Your task to perform on an android device: Set the phone to "Do not disturb". Image 0: 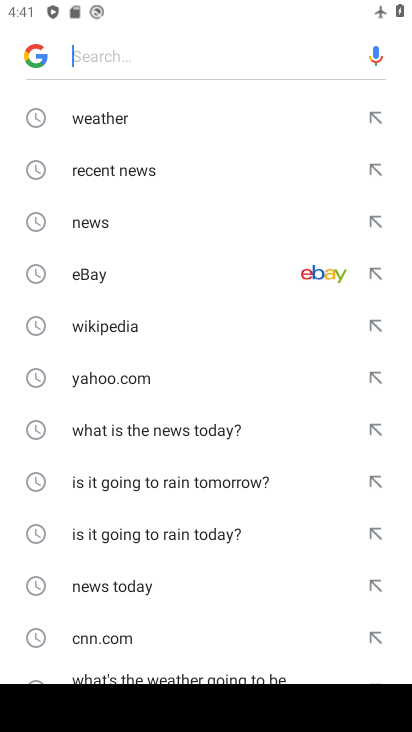
Step 0: press home button
Your task to perform on an android device: Set the phone to "Do not disturb". Image 1: 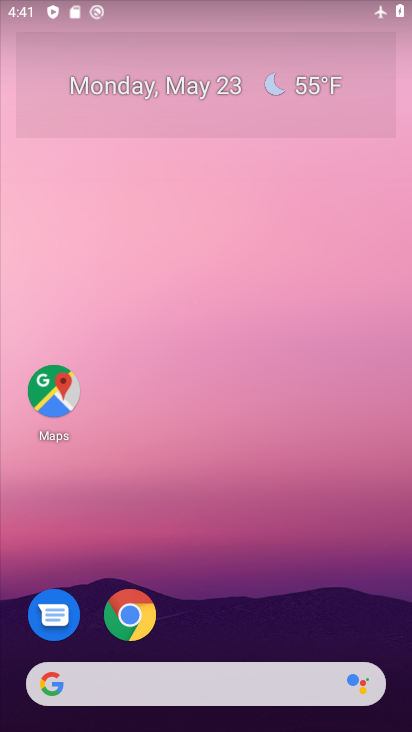
Step 1: drag from (330, 613) to (369, 199)
Your task to perform on an android device: Set the phone to "Do not disturb". Image 2: 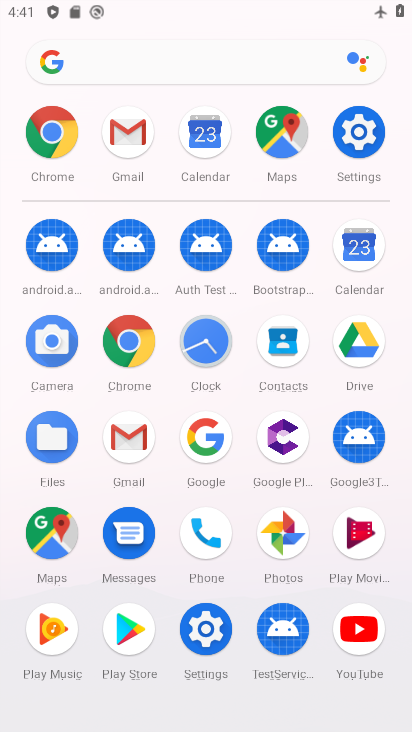
Step 2: click (357, 147)
Your task to perform on an android device: Set the phone to "Do not disturb". Image 3: 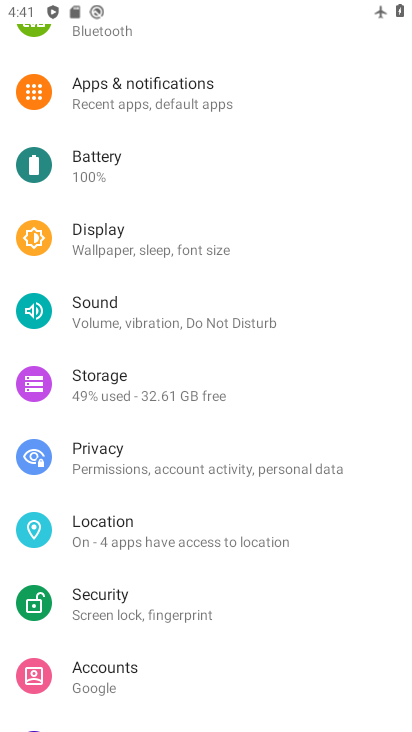
Step 3: drag from (330, 233) to (326, 375)
Your task to perform on an android device: Set the phone to "Do not disturb". Image 4: 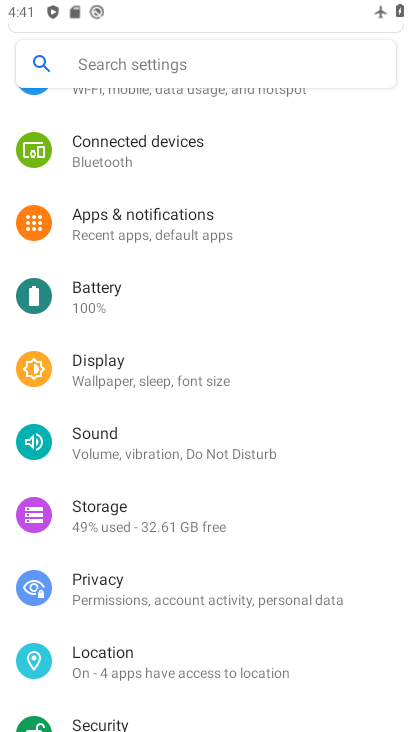
Step 4: drag from (326, 170) to (320, 336)
Your task to perform on an android device: Set the phone to "Do not disturb". Image 5: 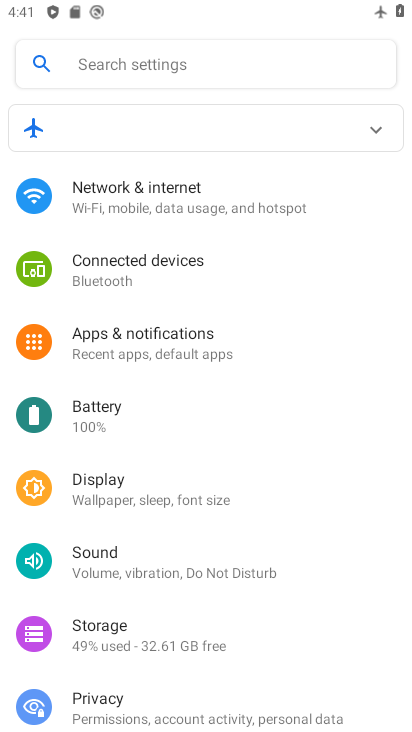
Step 5: drag from (340, 414) to (340, 323)
Your task to perform on an android device: Set the phone to "Do not disturb". Image 6: 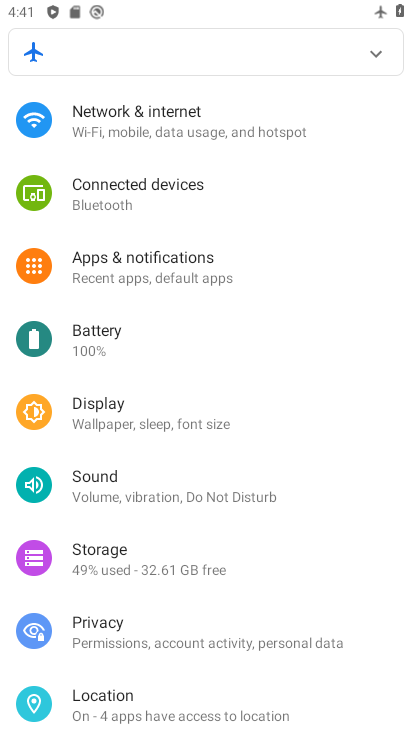
Step 6: drag from (333, 432) to (339, 334)
Your task to perform on an android device: Set the phone to "Do not disturb". Image 7: 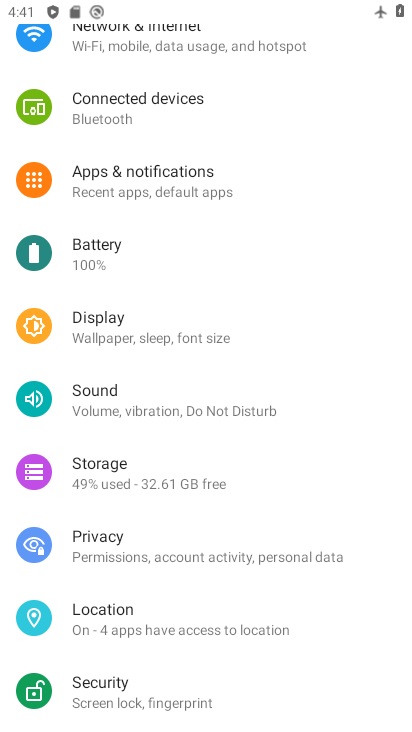
Step 7: drag from (337, 450) to (338, 355)
Your task to perform on an android device: Set the phone to "Do not disturb". Image 8: 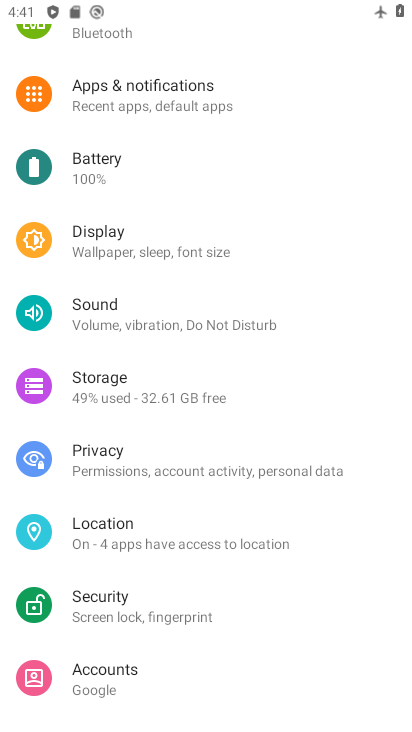
Step 8: drag from (353, 491) to (368, 381)
Your task to perform on an android device: Set the phone to "Do not disturb". Image 9: 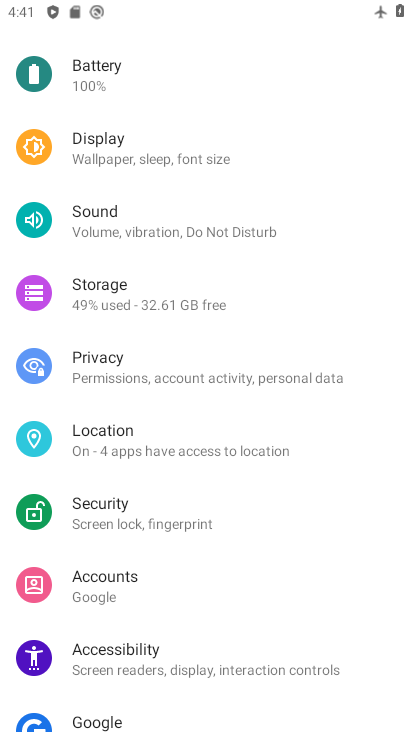
Step 9: drag from (353, 483) to (364, 375)
Your task to perform on an android device: Set the phone to "Do not disturb". Image 10: 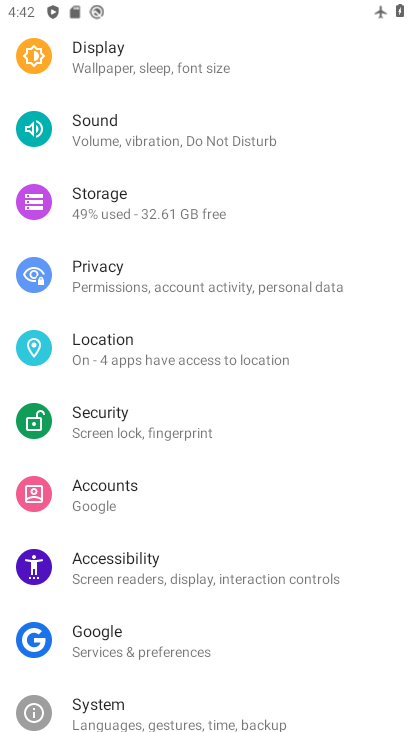
Step 10: drag from (346, 515) to (355, 395)
Your task to perform on an android device: Set the phone to "Do not disturb". Image 11: 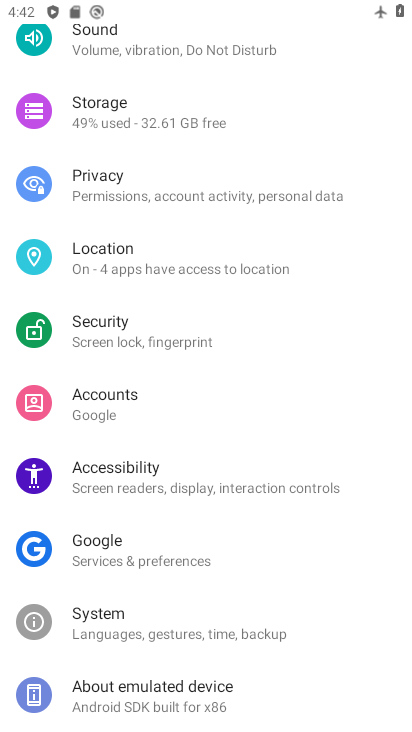
Step 11: drag from (340, 550) to (351, 418)
Your task to perform on an android device: Set the phone to "Do not disturb". Image 12: 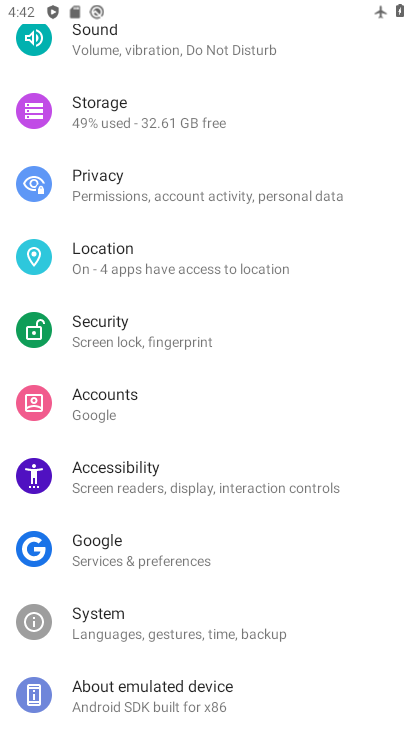
Step 12: click (251, 59)
Your task to perform on an android device: Set the phone to "Do not disturb". Image 13: 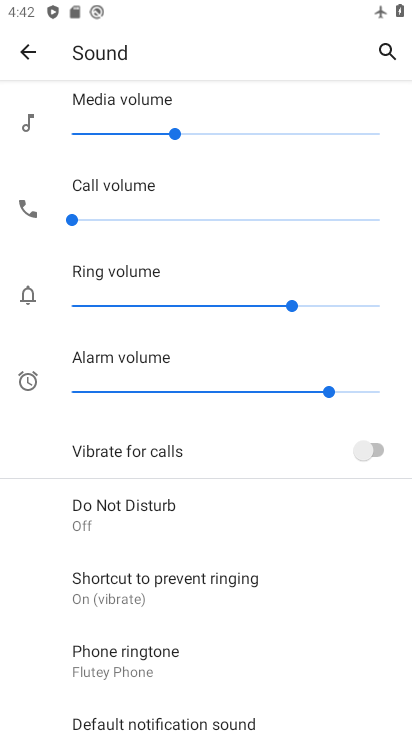
Step 13: drag from (251, 521) to (262, 386)
Your task to perform on an android device: Set the phone to "Do not disturb". Image 14: 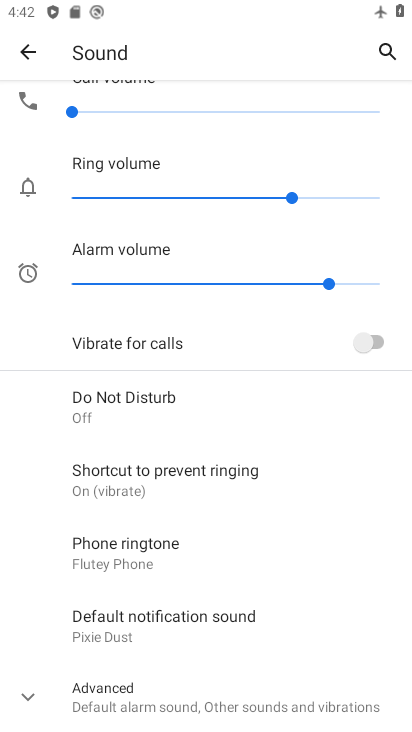
Step 14: click (235, 400)
Your task to perform on an android device: Set the phone to "Do not disturb". Image 15: 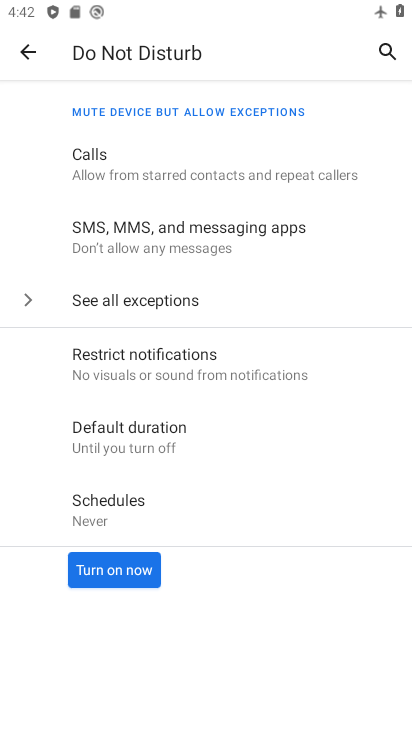
Step 15: click (138, 567)
Your task to perform on an android device: Set the phone to "Do not disturb". Image 16: 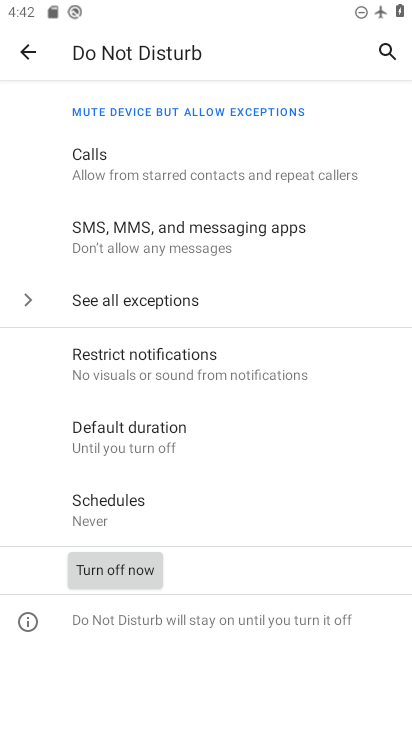
Step 16: task complete